Your task to perform on an android device: open the mobile data screen to see how much data has been used Image 0: 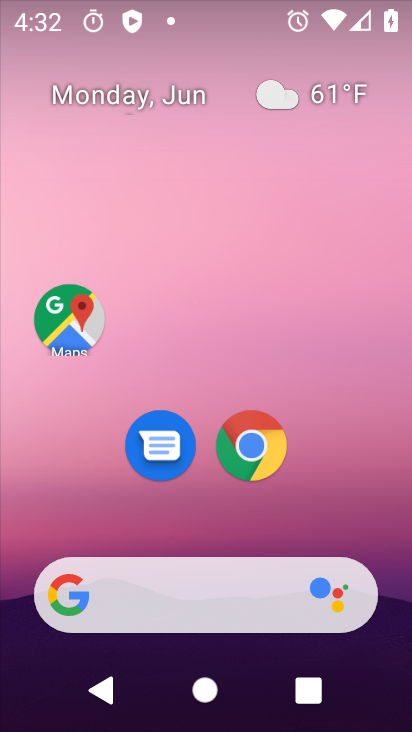
Step 0: drag from (234, 510) to (263, 264)
Your task to perform on an android device: open the mobile data screen to see how much data has been used Image 1: 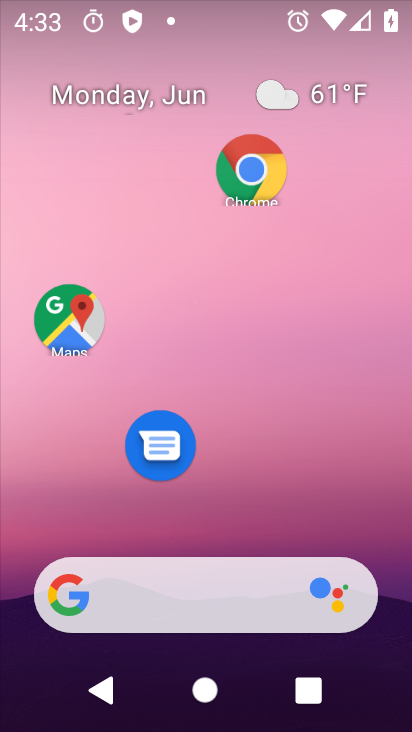
Step 1: drag from (247, 535) to (256, 21)
Your task to perform on an android device: open the mobile data screen to see how much data has been used Image 2: 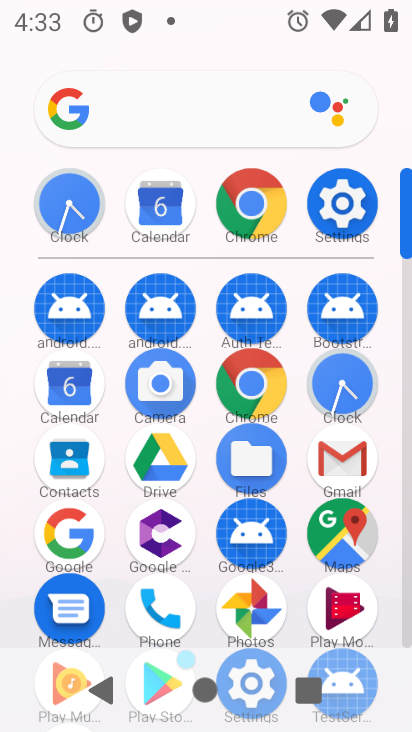
Step 2: click (332, 214)
Your task to perform on an android device: open the mobile data screen to see how much data has been used Image 3: 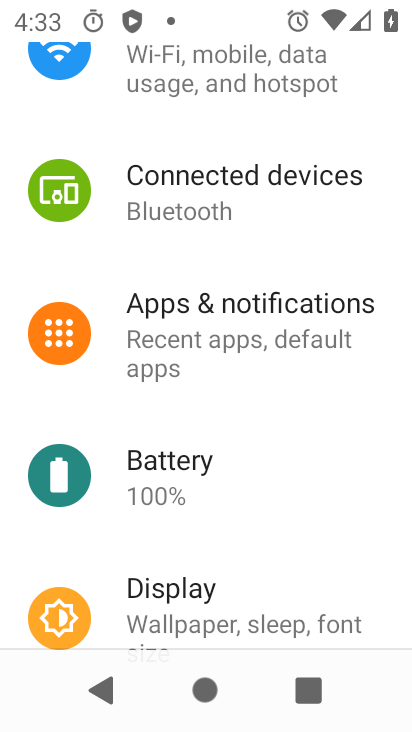
Step 3: drag from (195, 203) to (188, 436)
Your task to perform on an android device: open the mobile data screen to see how much data has been used Image 4: 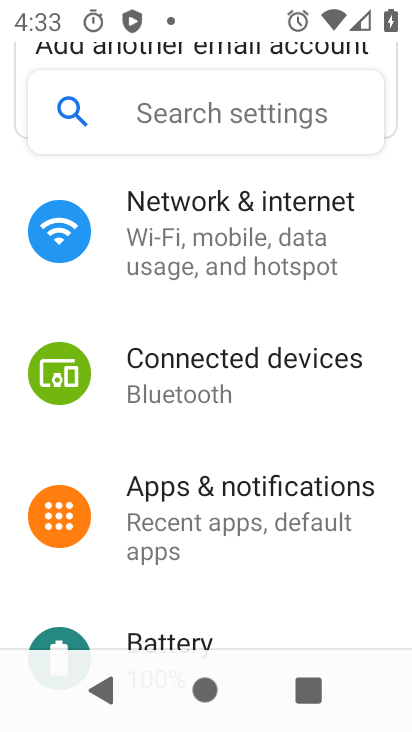
Step 4: click (179, 248)
Your task to perform on an android device: open the mobile data screen to see how much data has been used Image 5: 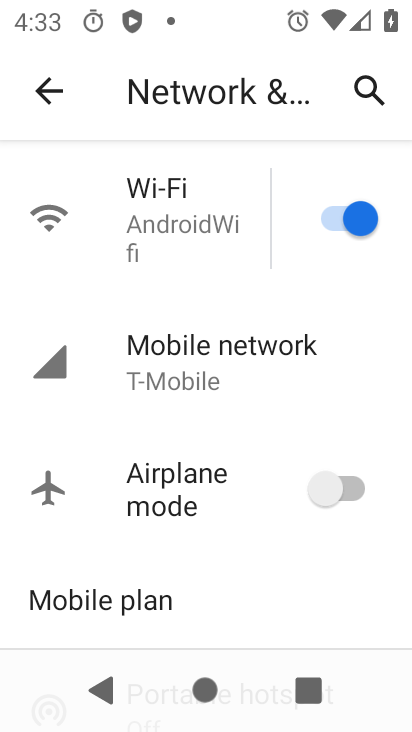
Step 5: click (195, 376)
Your task to perform on an android device: open the mobile data screen to see how much data has been used Image 6: 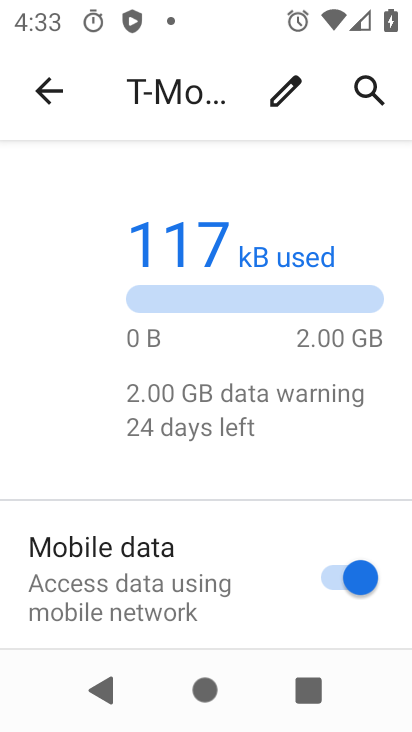
Step 6: task complete